Your task to perform on an android device: turn on the 24-hour format for clock Image 0: 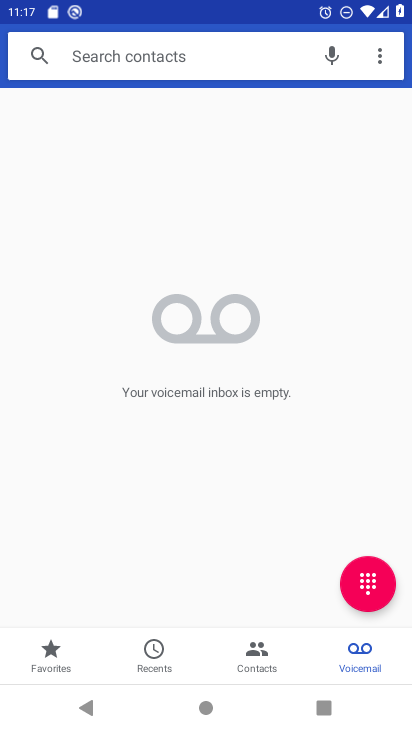
Step 0: press home button
Your task to perform on an android device: turn on the 24-hour format for clock Image 1: 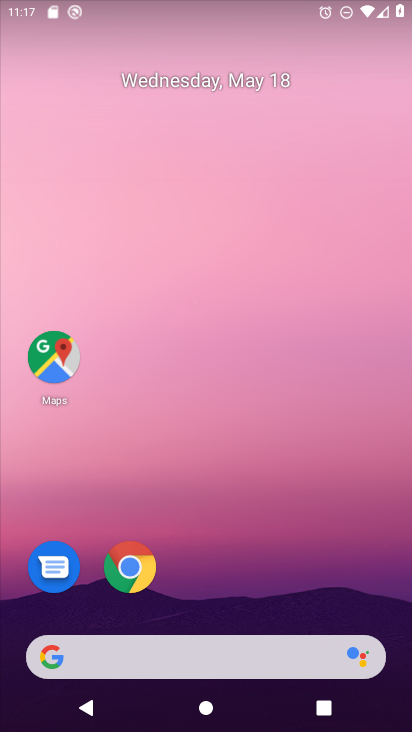
Step 1: drag from (284, 682) to (228, 322)
Your task to perform on an android device: turn on the 24-hour format for clock Image 2: 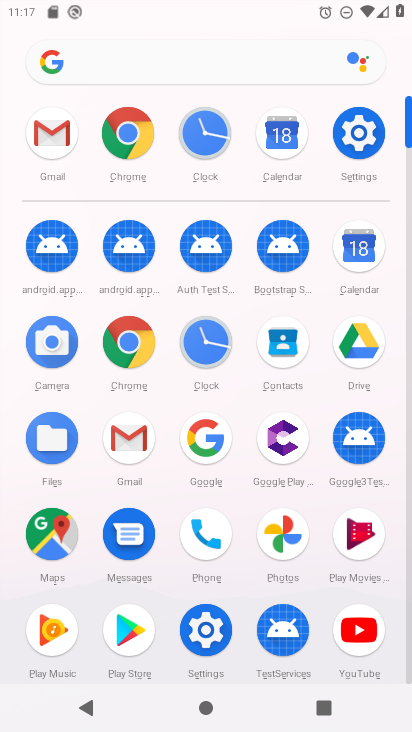
Step 2: click (219, 145)
Your task to perform on an android device: turn on the 24-hour format for clock Image 3: 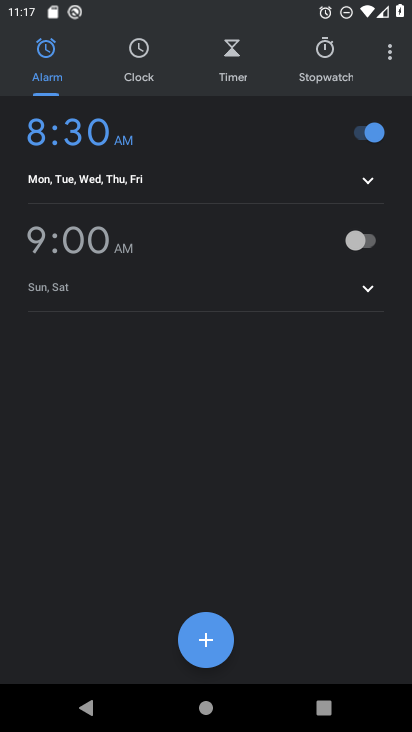
Step 3: click (382, 55)
Your task to perform on an android device: turn on the 24-hour format for clock Image 4: 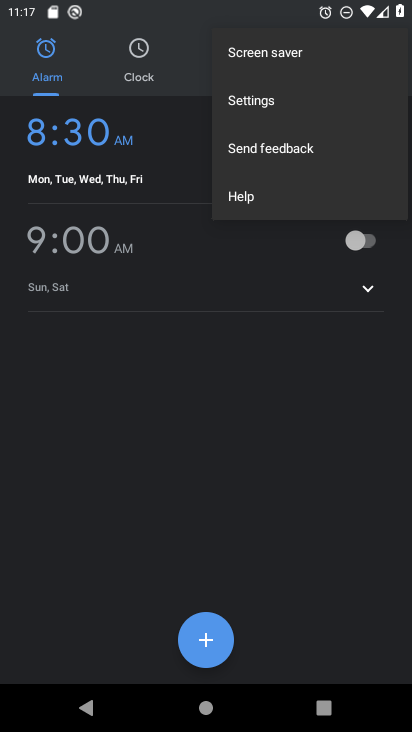
Step 4: click (287, 101)
Your task to perform on an android device: turn on the 24-hour format for clock Image 5: 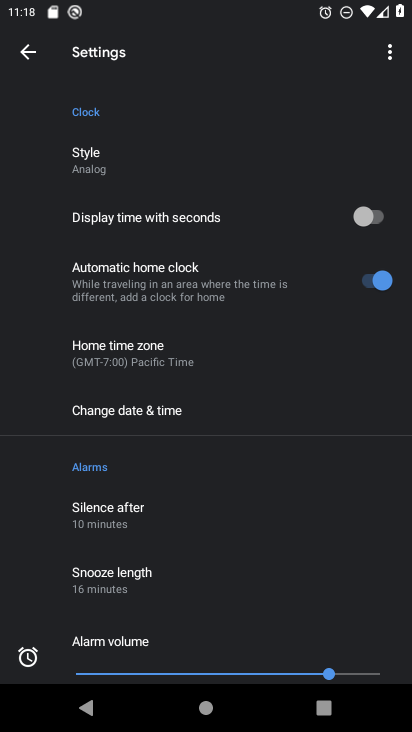
Step 5: click (144, 407)
Your task to perform on an android device: turn on the 24-hour format for clock Image 6: 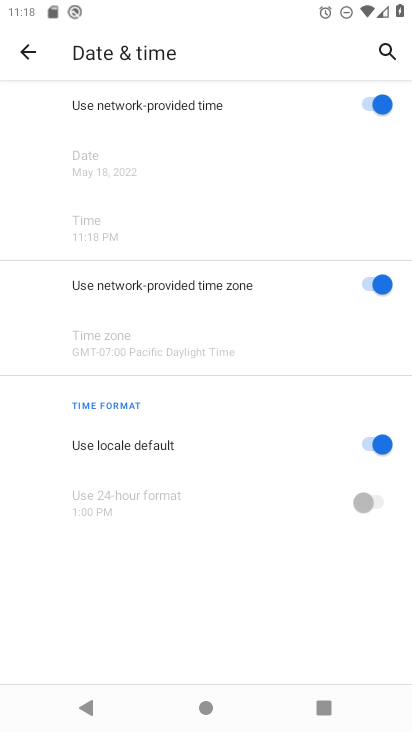
Step 6: click (384, 450)
Your task to perform on an android device: turn on the 24-hour format for clock Image 7: 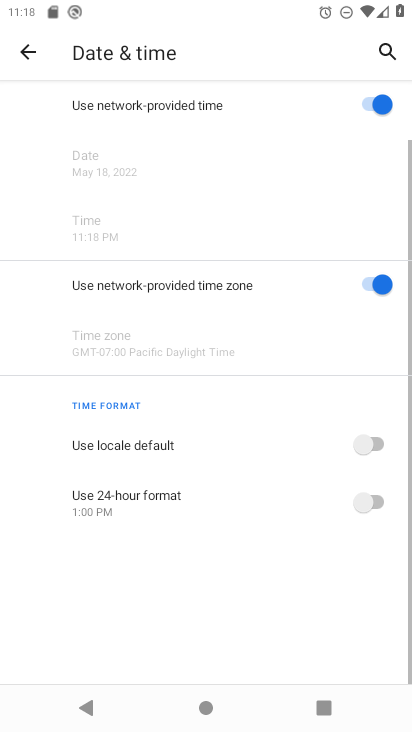
Step 7: click (372, 507)
Your task to perform on an android device: turn on the 24-hour format for clock Image 8: 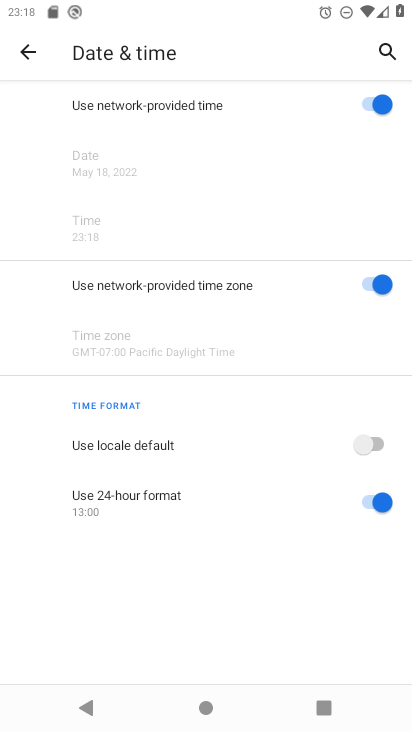
Step 8: task complete